Your task to perform on an android device: turn off priority inbox in the gmail app Image 0: 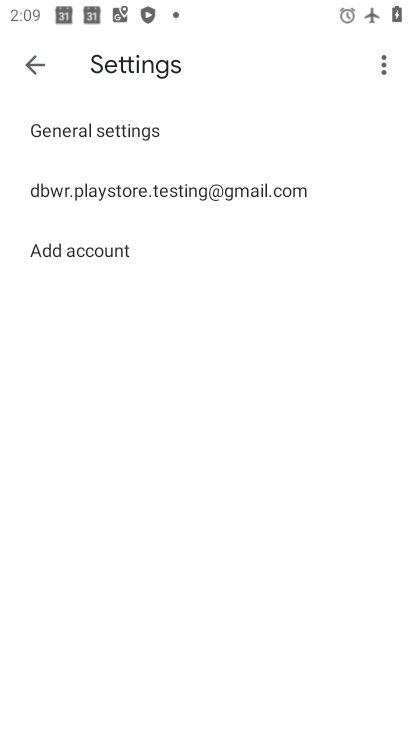
Step 0: press home button
Your task to perform on an android device: turn off priority inbox in the gmail app Image 1: 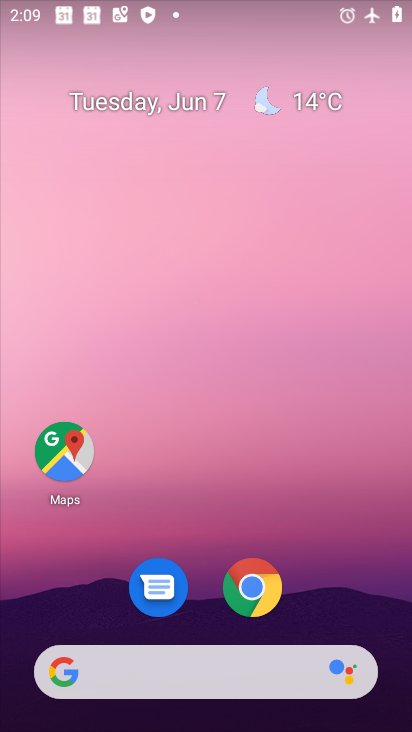
Step 1: drag from (360, 629) to (349, 313)
Your task to perform on an android device: turn off priority inbox in the gmail app Image 2: 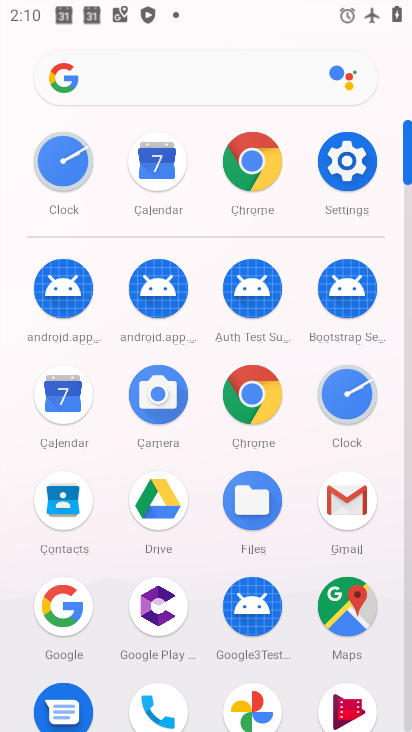
Step 2: click (345, 505)
Your task to perform on an android device: turn off priority inbox in the gmail app Image 3: 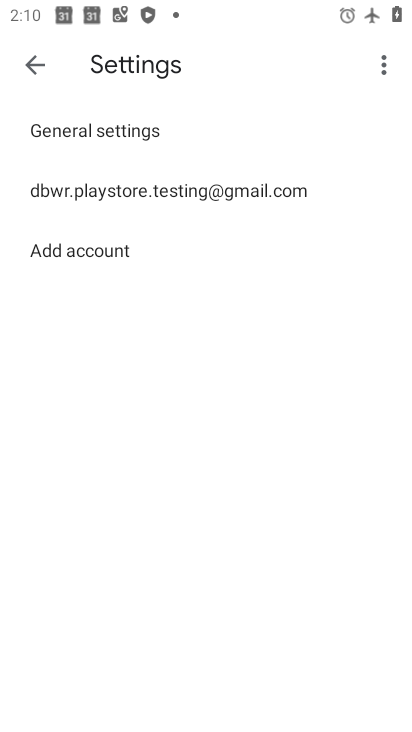
Step 3: click (165, 198)
Your task to perform on an android device: turn off priority inbox in the gmail app Image 4: 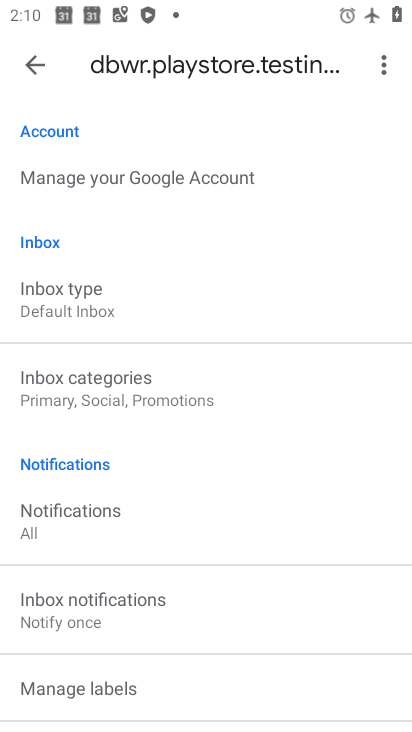
Step 4: click (141, 310)
Your task to perform on an android device: turn off priority inbox in the gmail app Image 5: 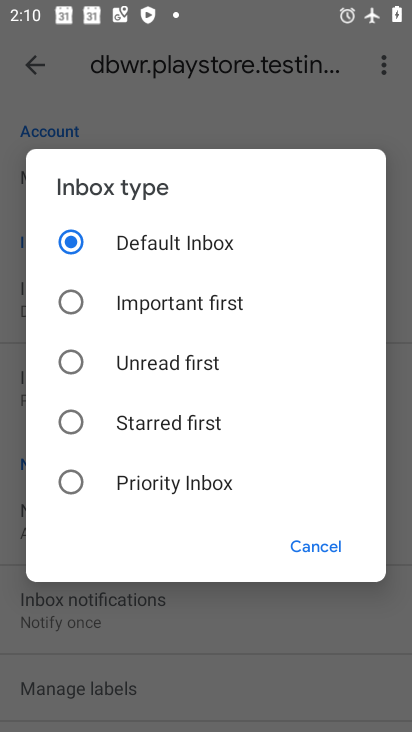
Step 5: click (127, 315)
Your task to perform on an android device: turn off priority inbox in the gmail app Image 6: 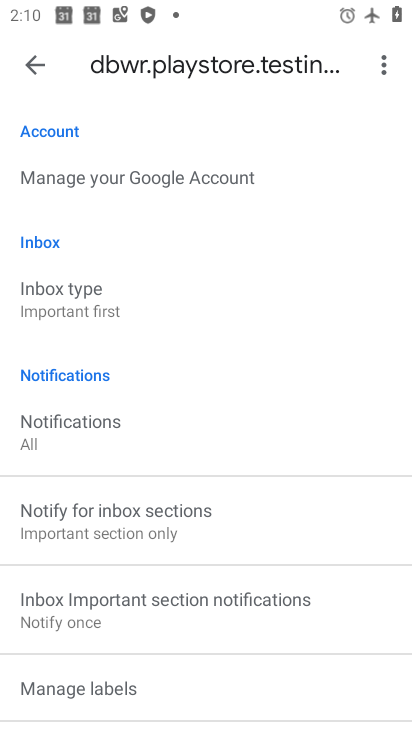
Step 6: task complete